Your task to perform on an android device: Go to battery settings Image 0: 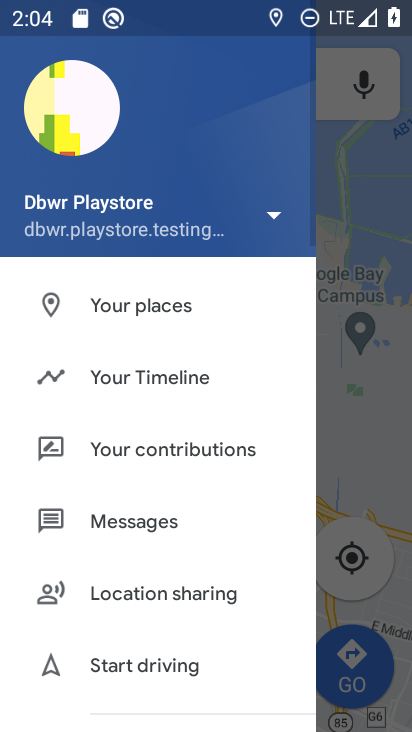
Step 0: press home button
Your task to perform on an android device: Go to battery settings Image 1: 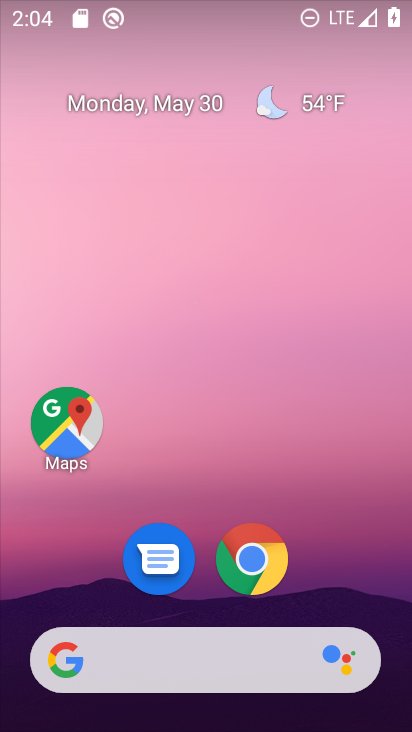
Step 1: drag from (343, 592) to (410, 96)
Your task to perform on an android device: Go to battery settings Image 2: 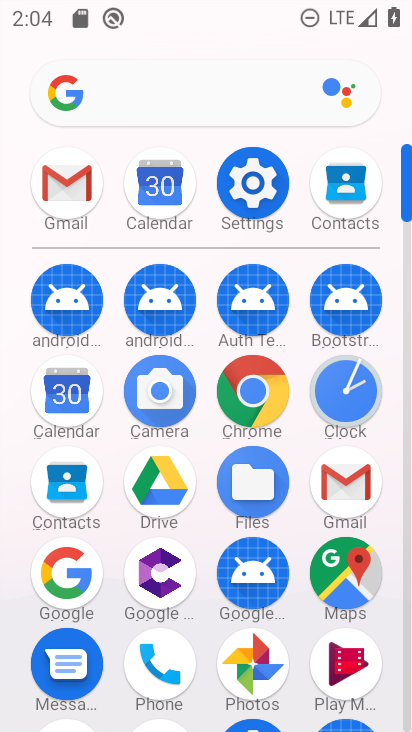
Step 2: click (253, 181)
Your task to perform on an android device: Go to battery settings Image 3: 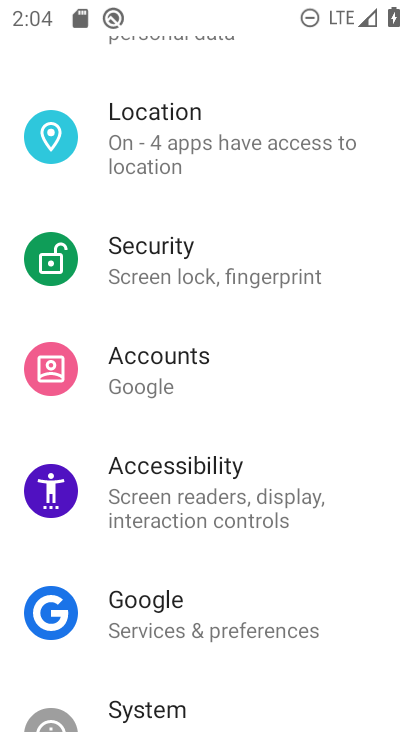
Step 3: drag from (253, 289) to (247, 598)
Your task to perform on an android device: Go to battery settings Image 4: 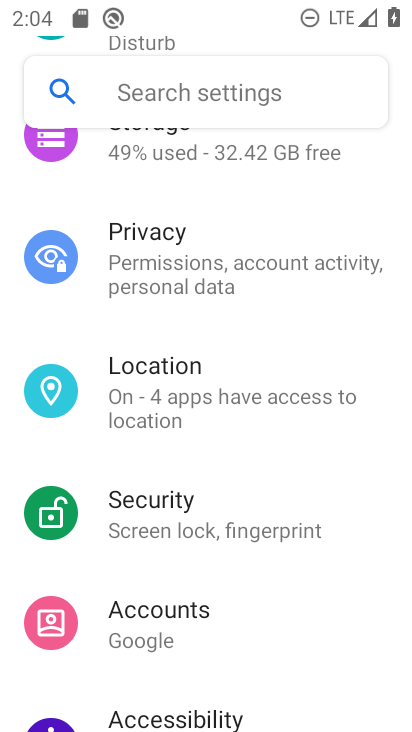
Step 4: drag from (215, 275) to (163, 551)
Your task to perform on an android device: Go to battery settings Image 5: 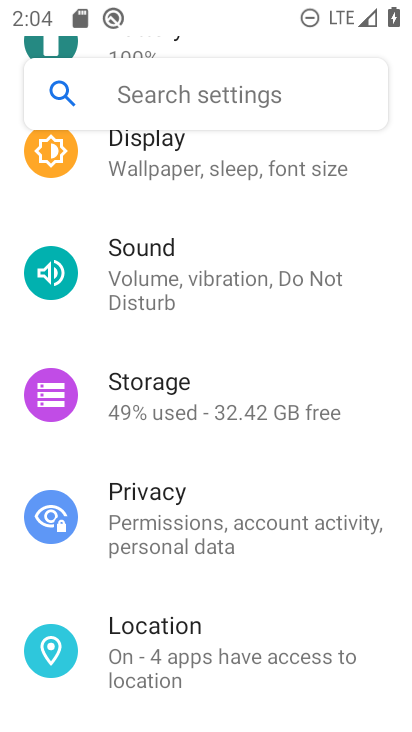
Step 5: drag from (229, 254) to (220, 531)
Your task to perform on an android device: Go to battery settings Image 6: 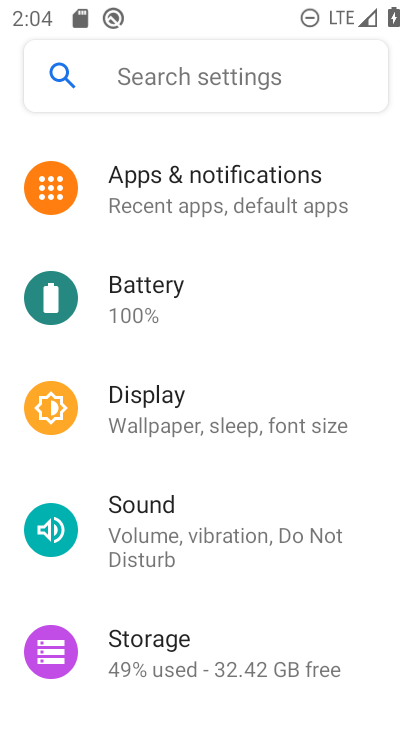
Step 6: click (185, 310)
Your task to perform on an android device: Go to battery settings Image 7: 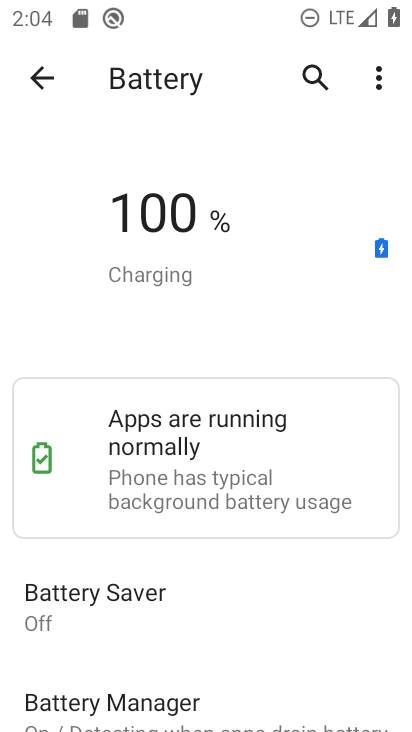
Step 7: task complete